Your task to perform on an android device: turn on data saver in the chrome app Image 0: 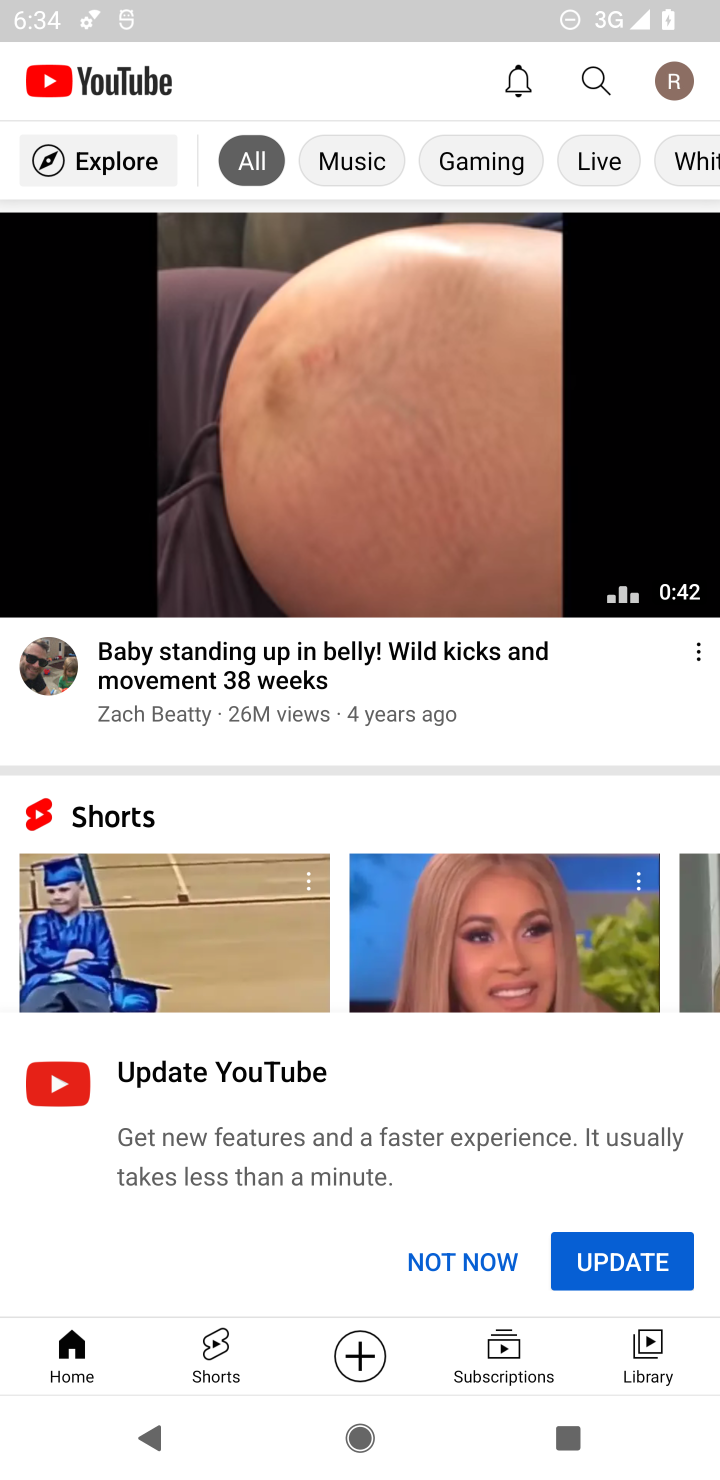
Step 0: press home button
Your task to perform on an android device: turn on data saver in the chrome app Image 1: 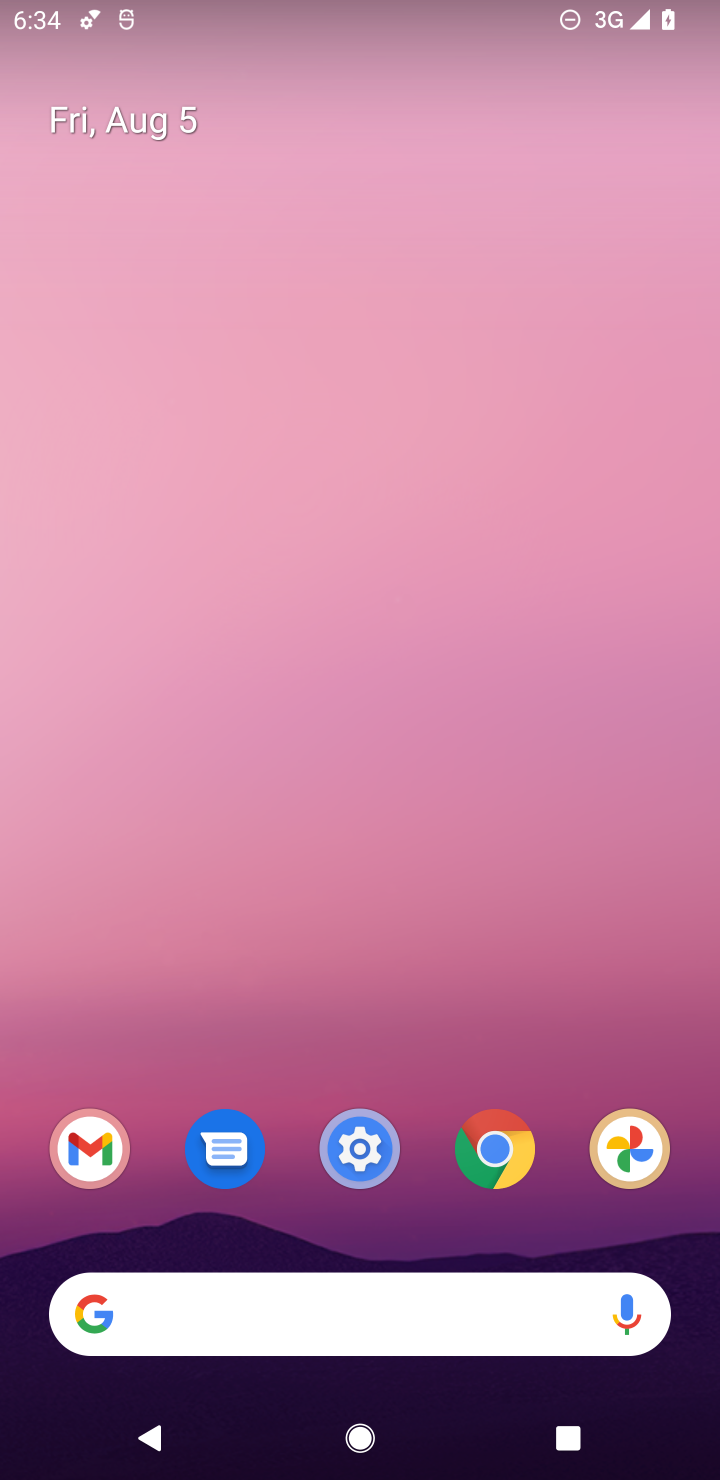
Step 1: click (501, 1150)
Your task to perform on an android device: turn on data saver in the chrome app Image 2: 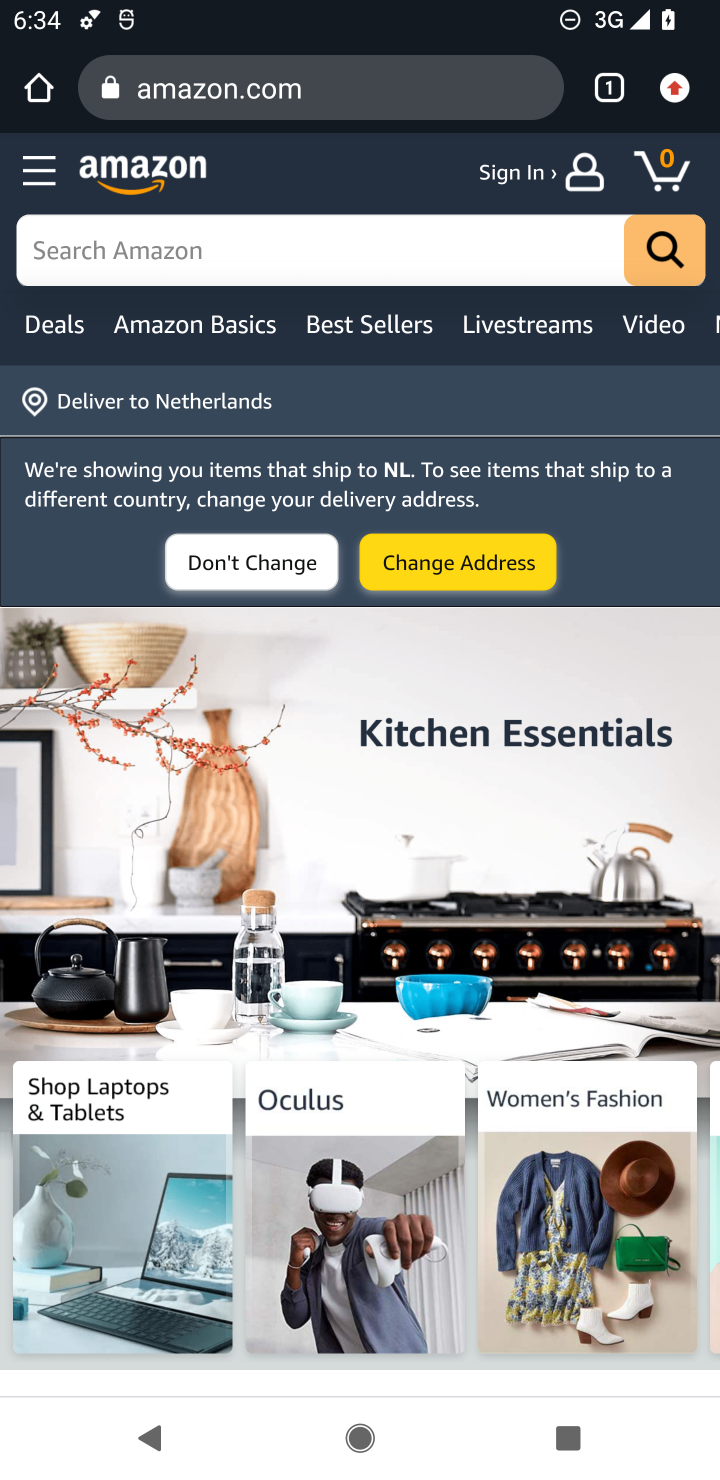
Step 2: press home button
Your task to perform on an android device: turn on data saver in the chrome app Image 3: 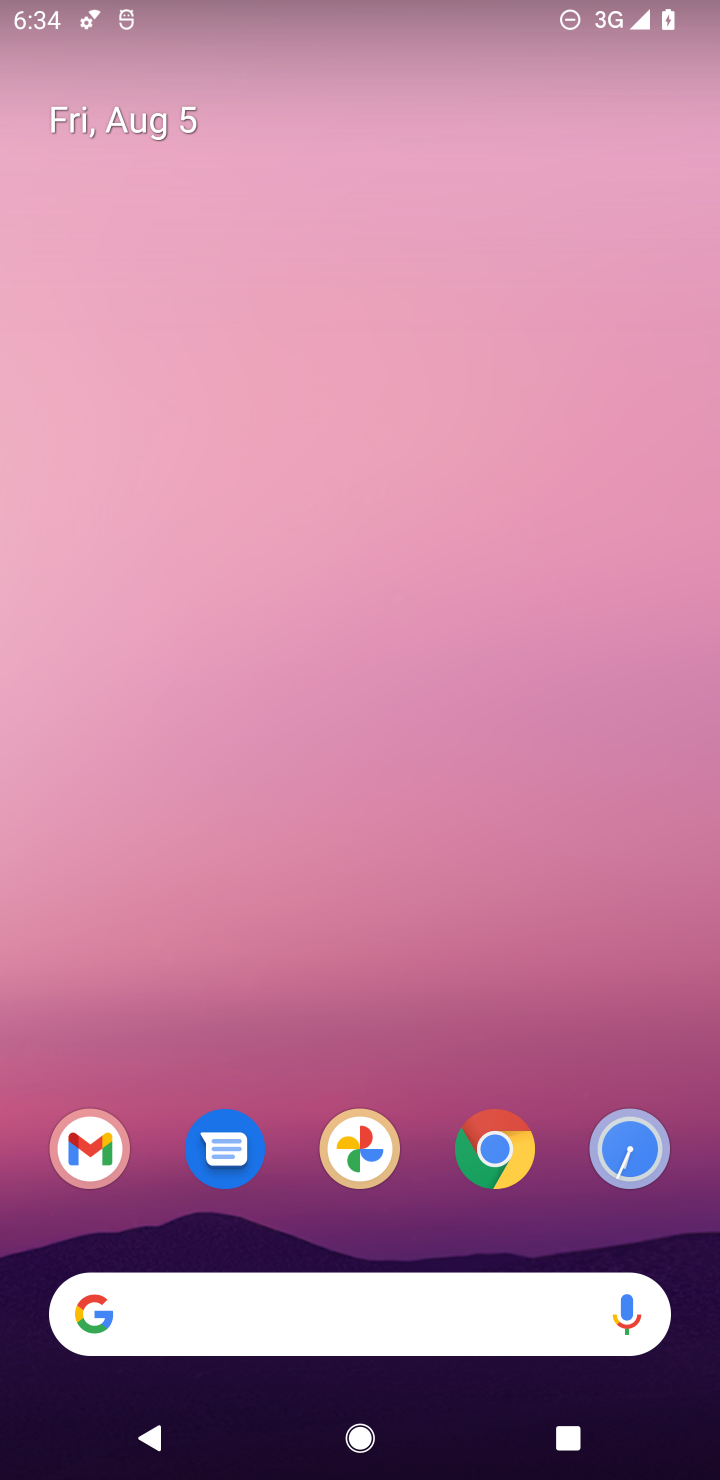
Step 3: click (512, 1173)
Your task to perform on an android device: turn on data saver in the chrome app Image 4: 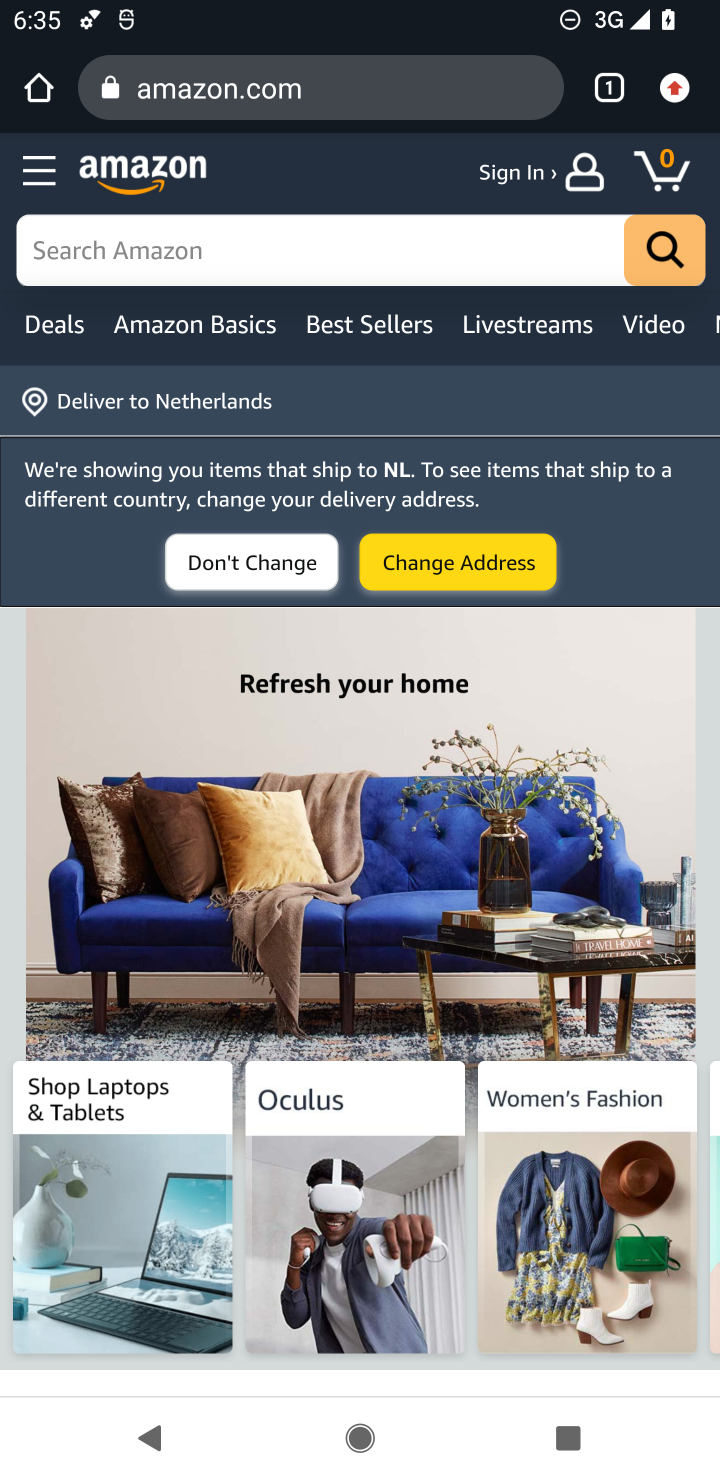
Step 4: click (682, 93)
Your task to perform on an android device: turn on data saver in the chrome app Image 5: 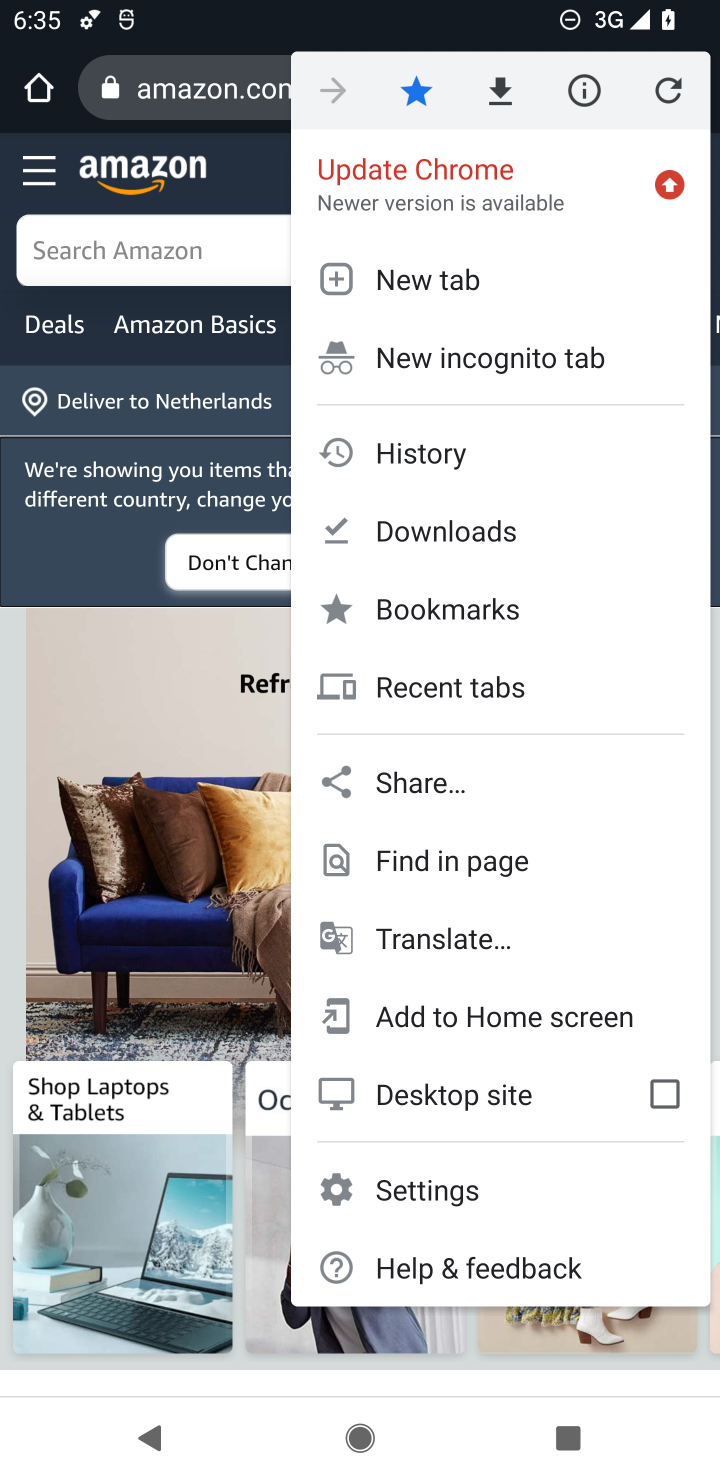
Step 5: click (403, 1199)
Your task to perform on an android device: turn on data saver in the chrome app Image 6: 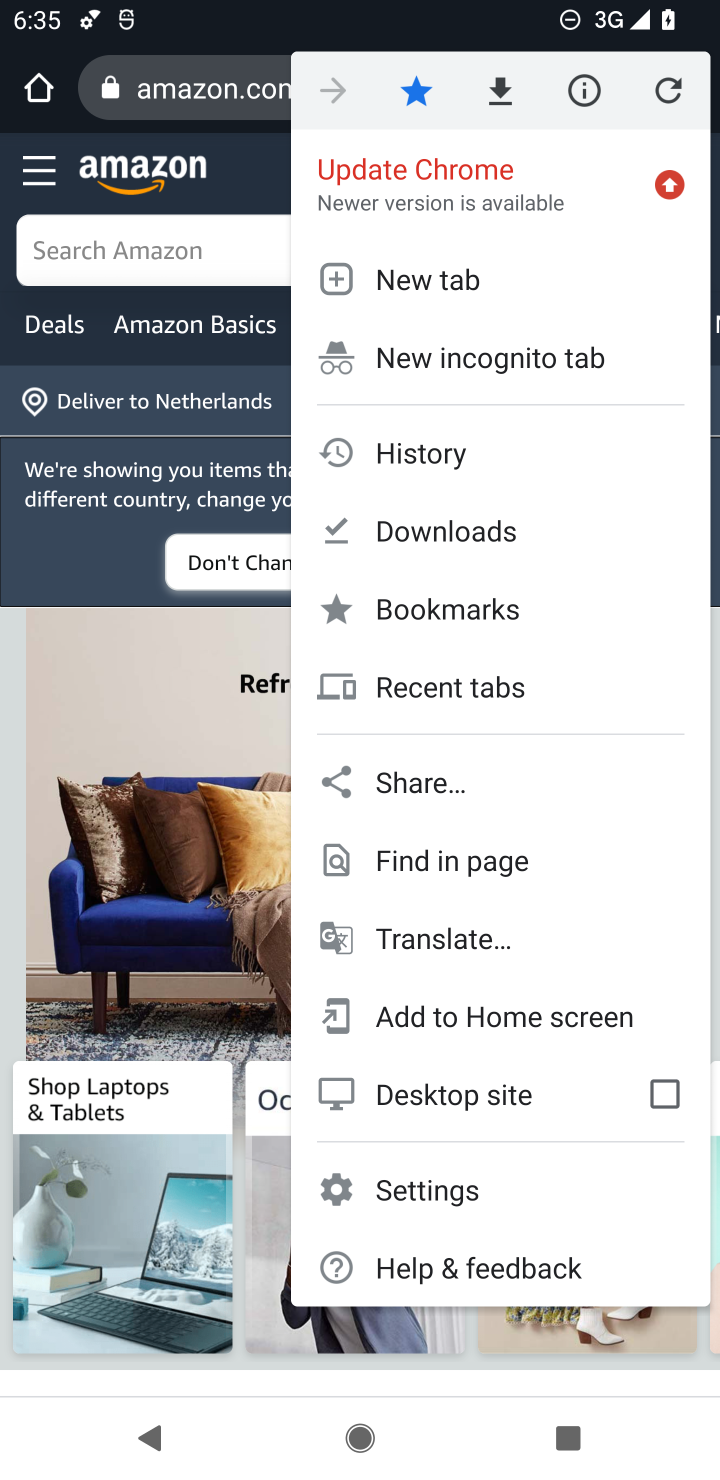
Step 6: click (403, 1199)
Your task to perform on an android device: turn on data saver in the chrome app Image 7: 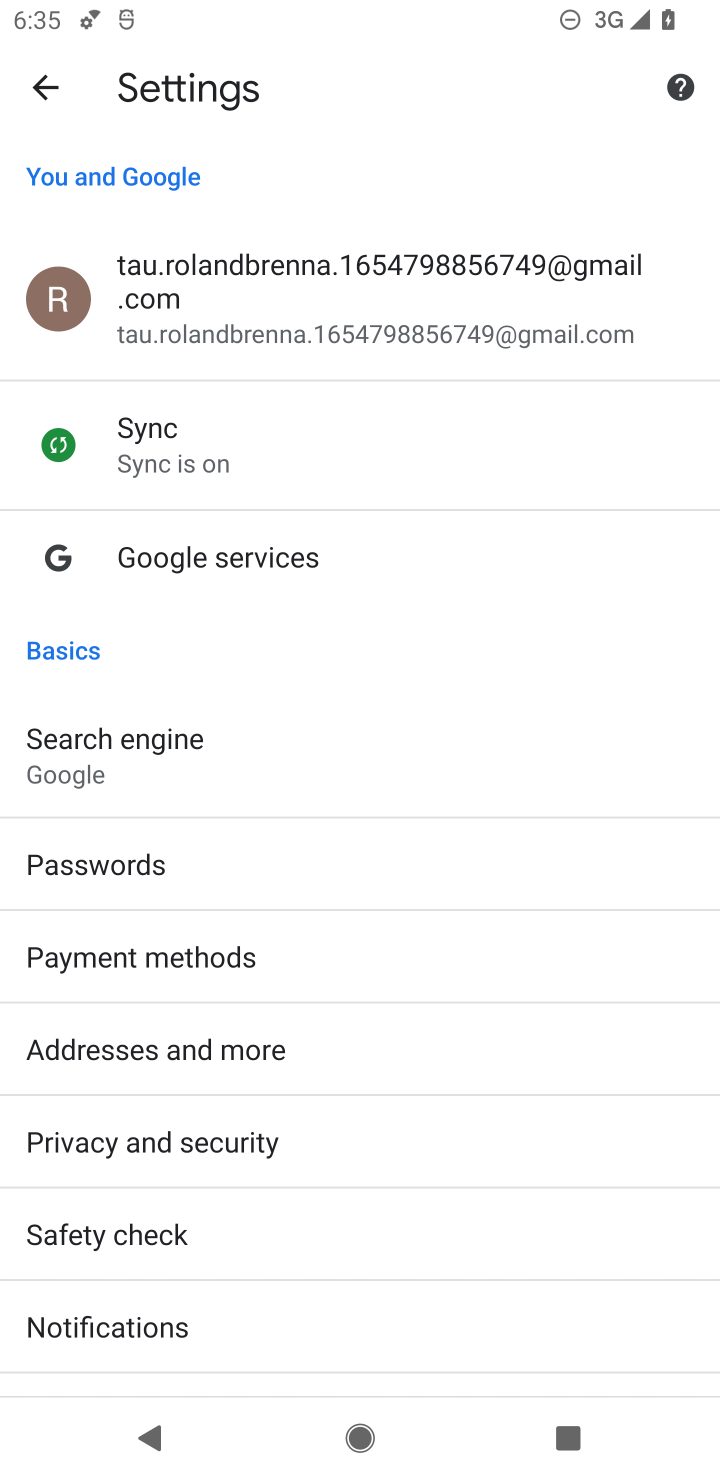
Step 7: drag from (471, 649) to (429, 29)
Your task to perform on an android device: turn on data saver in the chrome app Image 8: 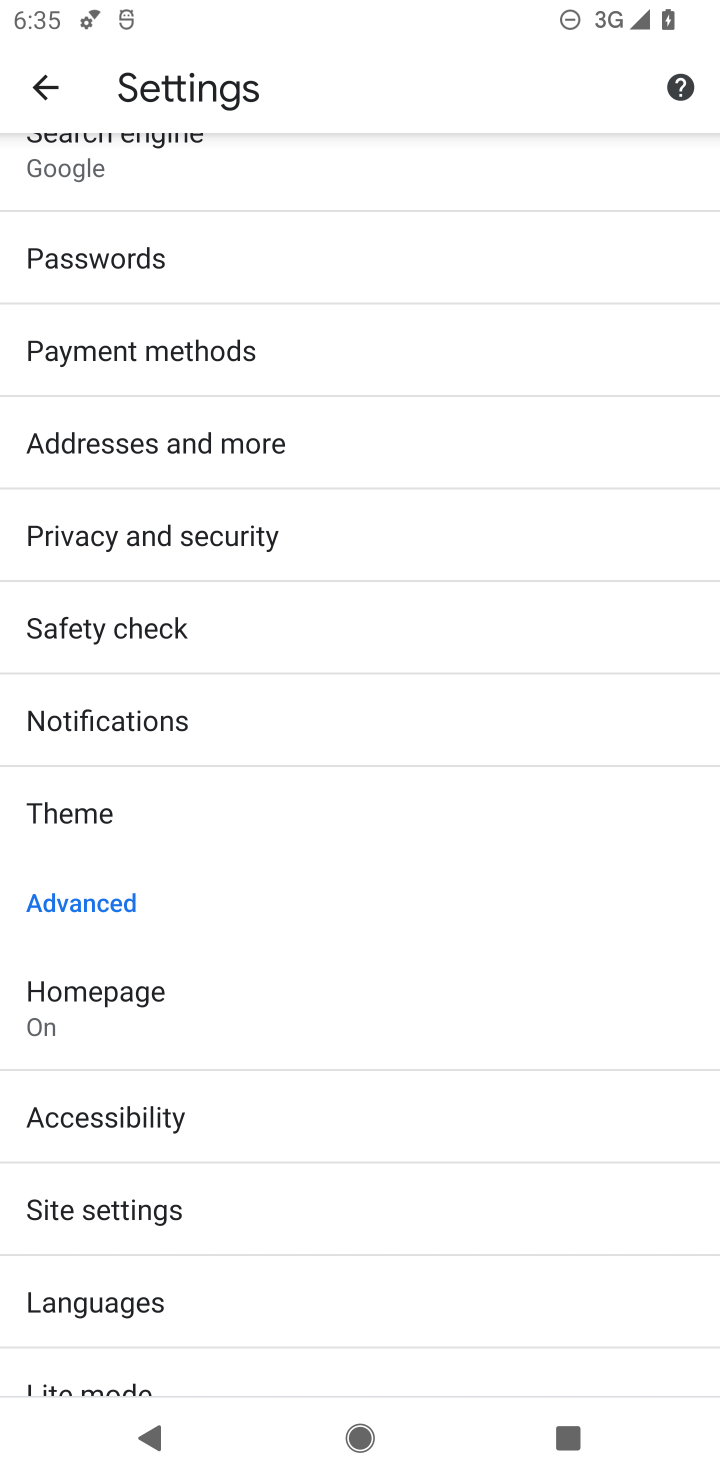
Step 8: drag from (427, 1006) to (414, 796)
Your task to perform on an android device: turn on data saver in the chrome app Image 9: 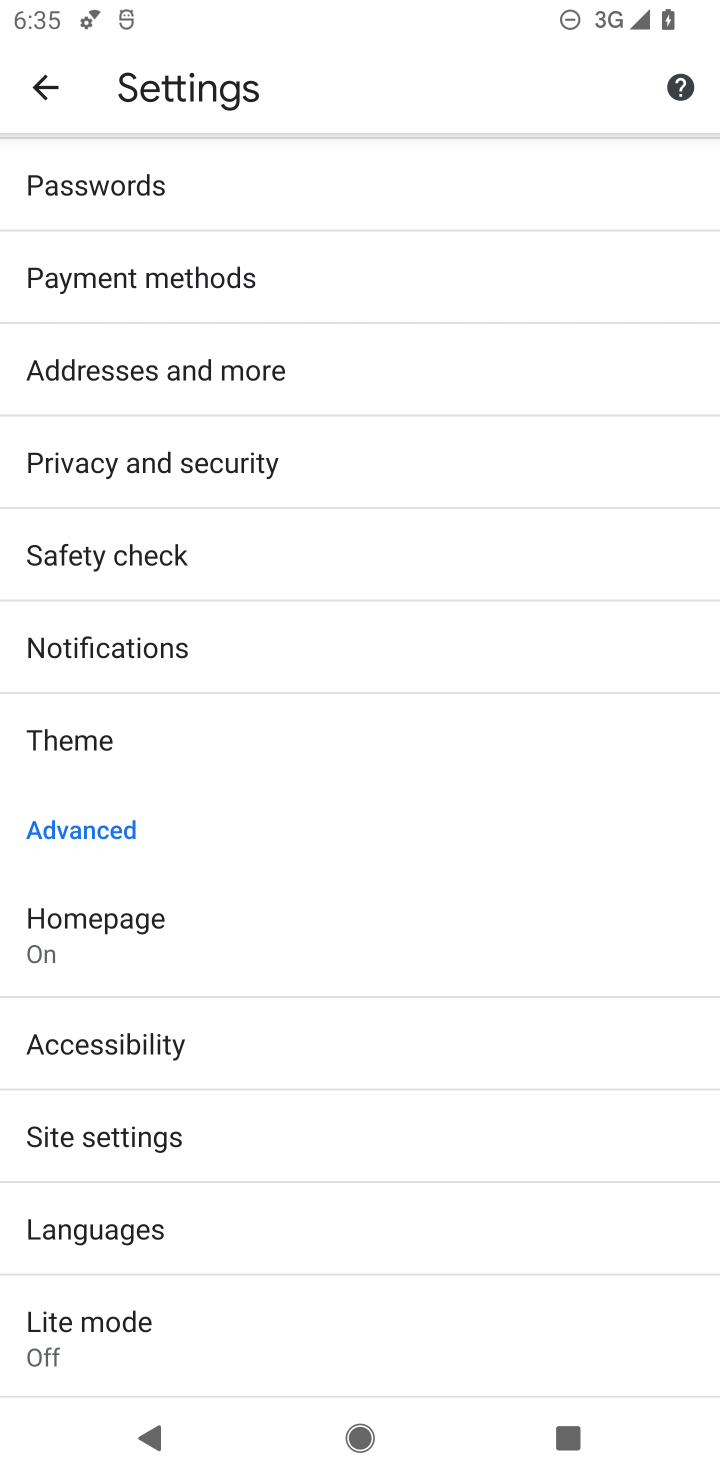
Step 9: click (113, 1324)
Your task to perform on an android device: turn on data saver in the chrome app Image 10: 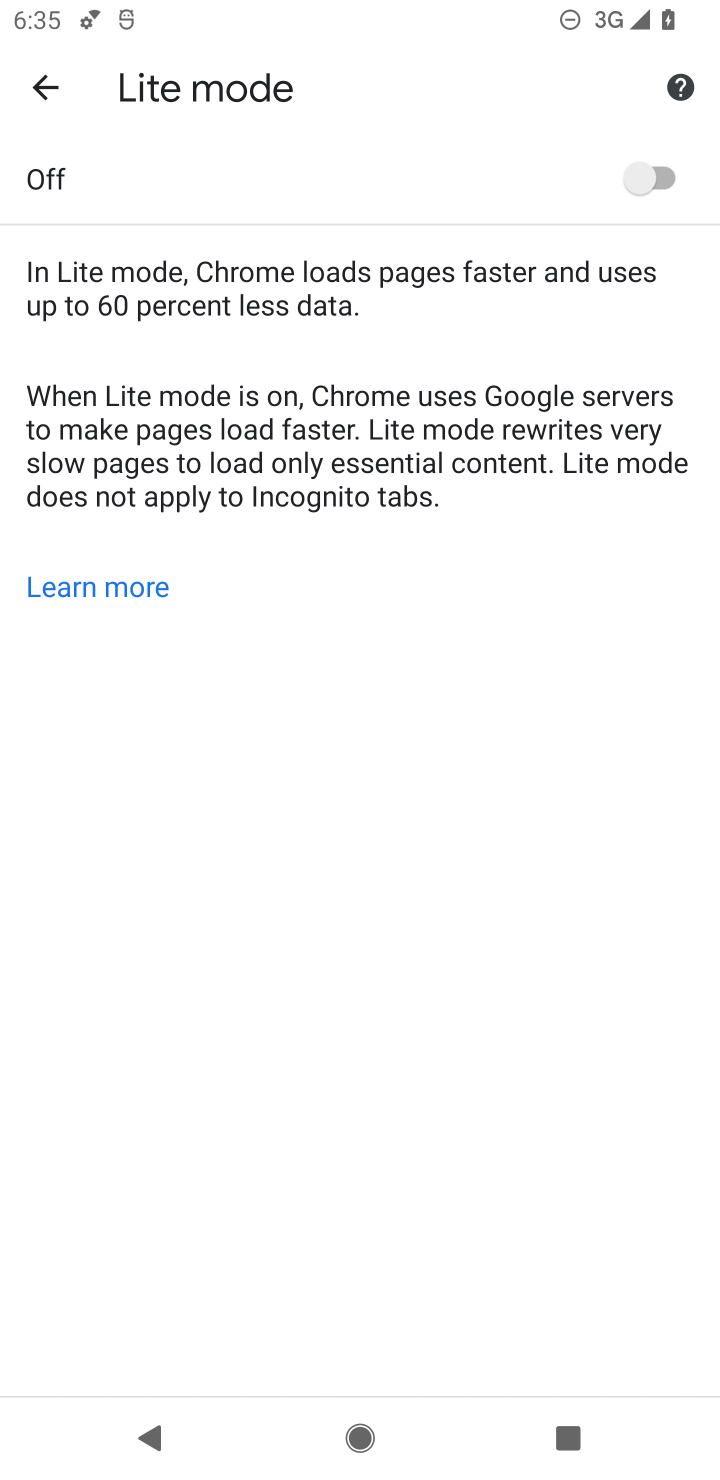
Step 10: click (642, 182)
Your task to perform on an android device: turn on data saver in the chrome app Image 11: 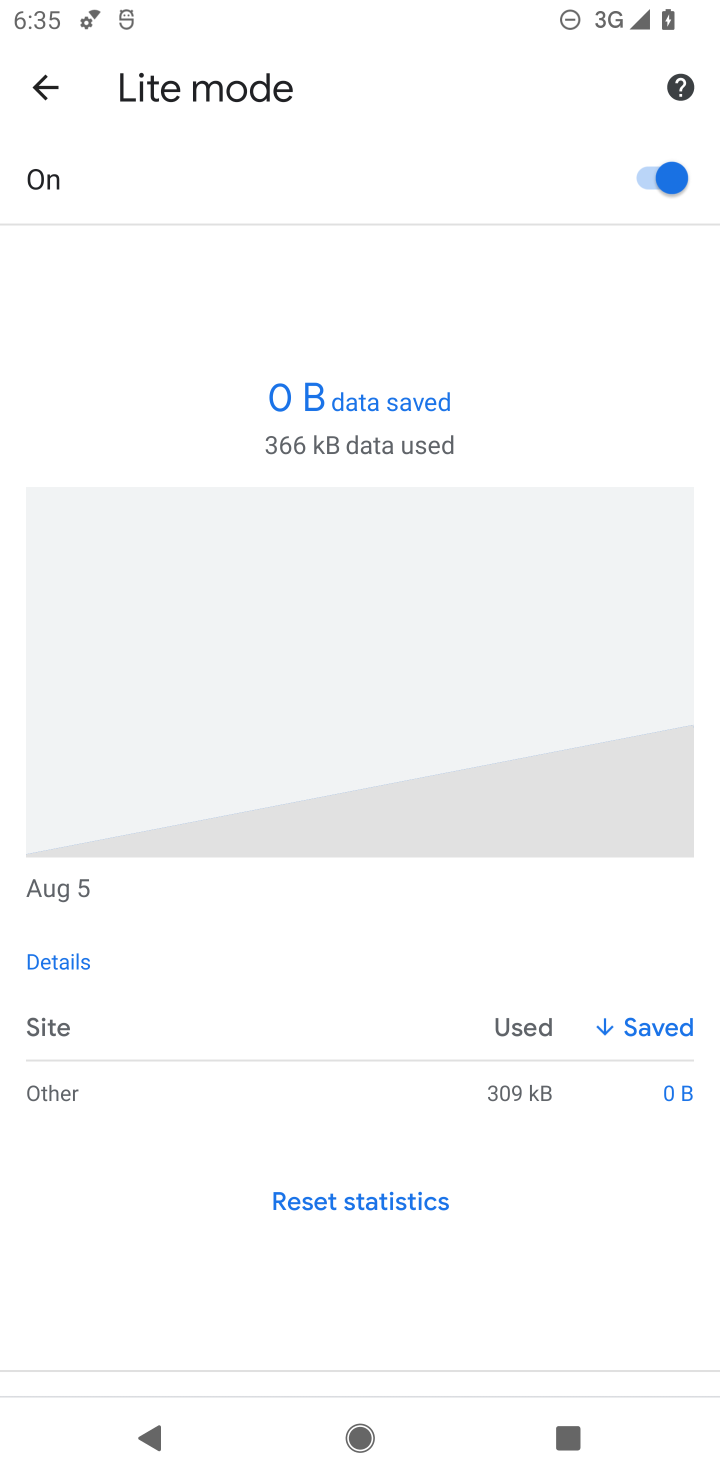
Step 11: task complete